Your task to perform on an android device: Clear all items from cart on amazon. Add usb-a to usb-b to the cart on amazon Image 0: 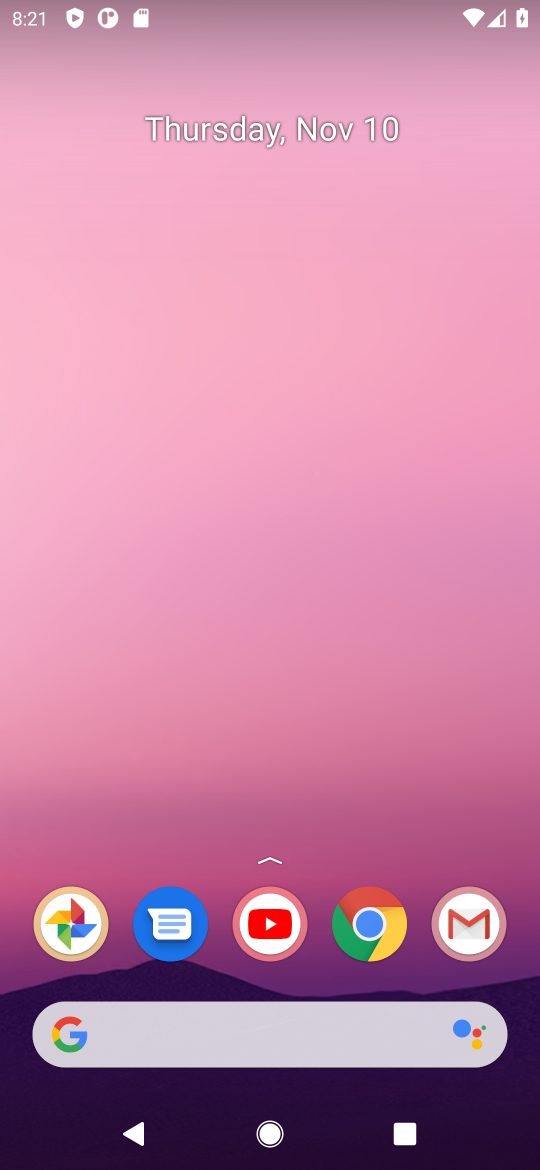
Step 0: click (380, 926)
Your task to perform on an android device: Clear all items from cart on amazon. Add usb-a to usb-b to the cart on amazon Image 1: 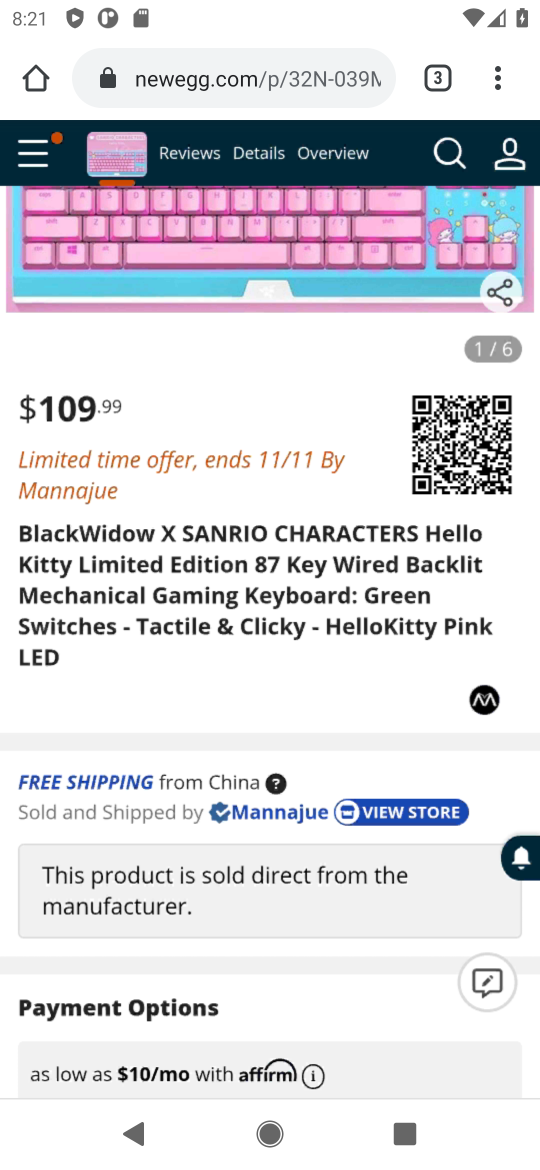
Step 1: click (222, 84)
Your task to perform on an android device: Clear all items from cart on amazon. Add usb-a to usb-b to the cart on amazon Image 2: 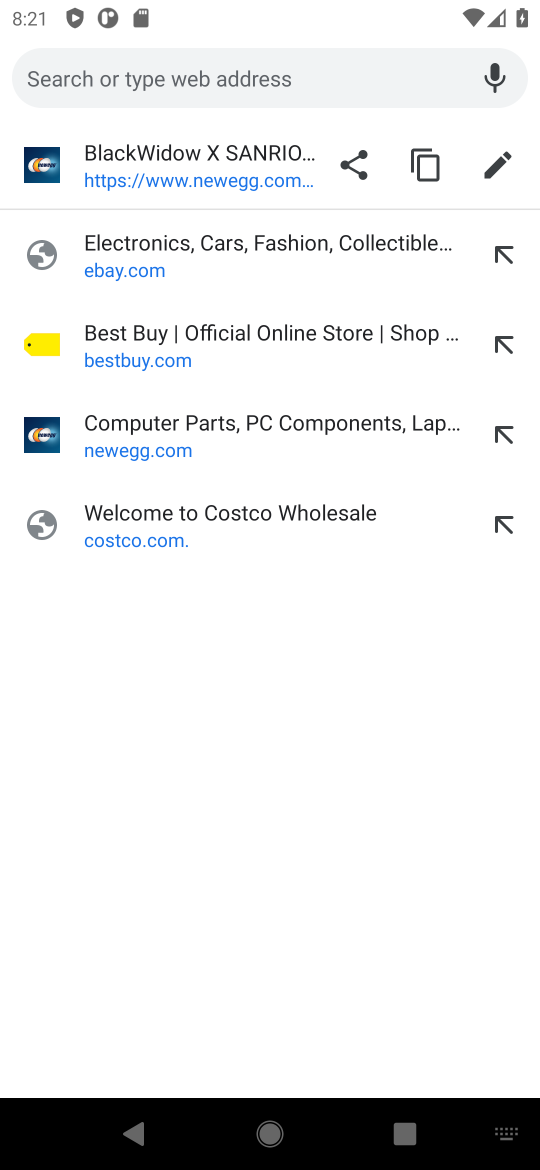
Step 2: type "amazon.com"
Your task to perform on an android device: Clear all items from cart on amazon. Add usb-a to usb-b to the cart on amazon Image 3: 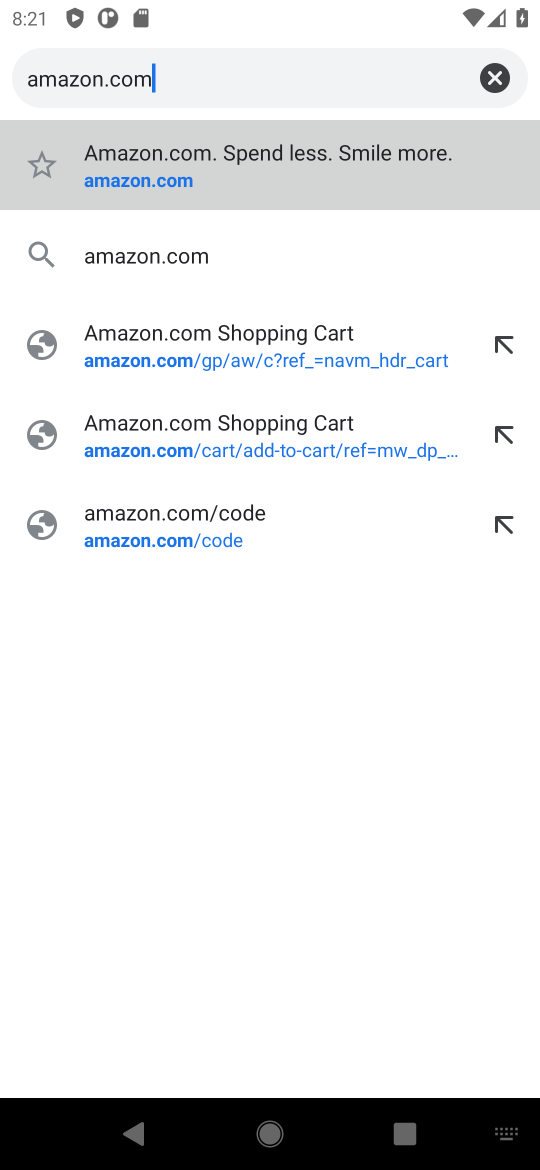
Step 3: click (185, 362)
Your task to perform on an android device: Clear all items from cart on amazon. Add usb-a to usb-b to the cart on amazon Image 4: 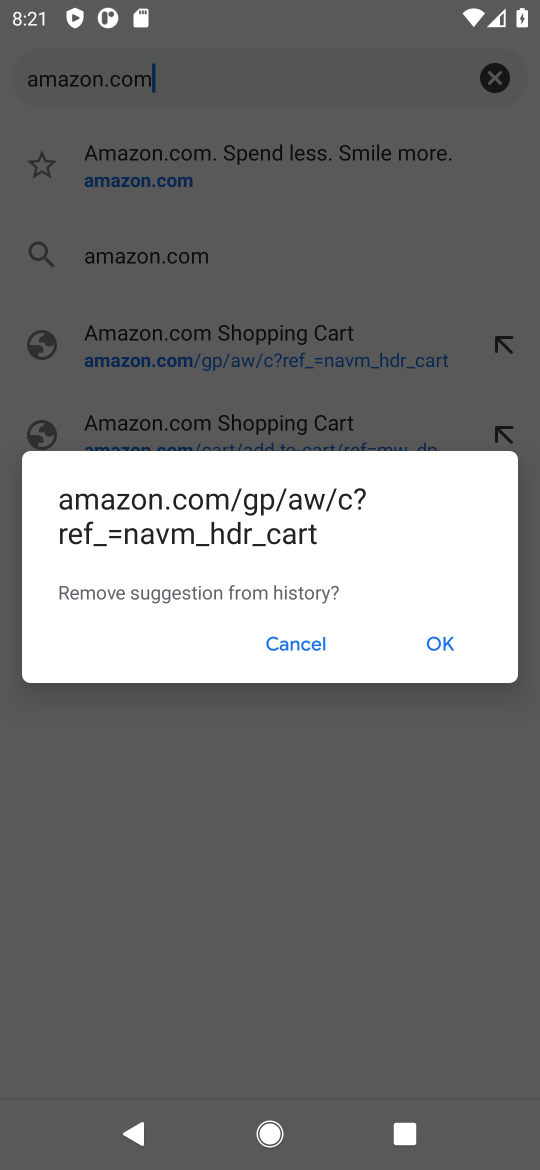
Step 4: click (185, 362)
Your task to perform on an android device: Clear all items from cart on amazon. Add usb-a to usb-b to the cart on amazon Image 5: 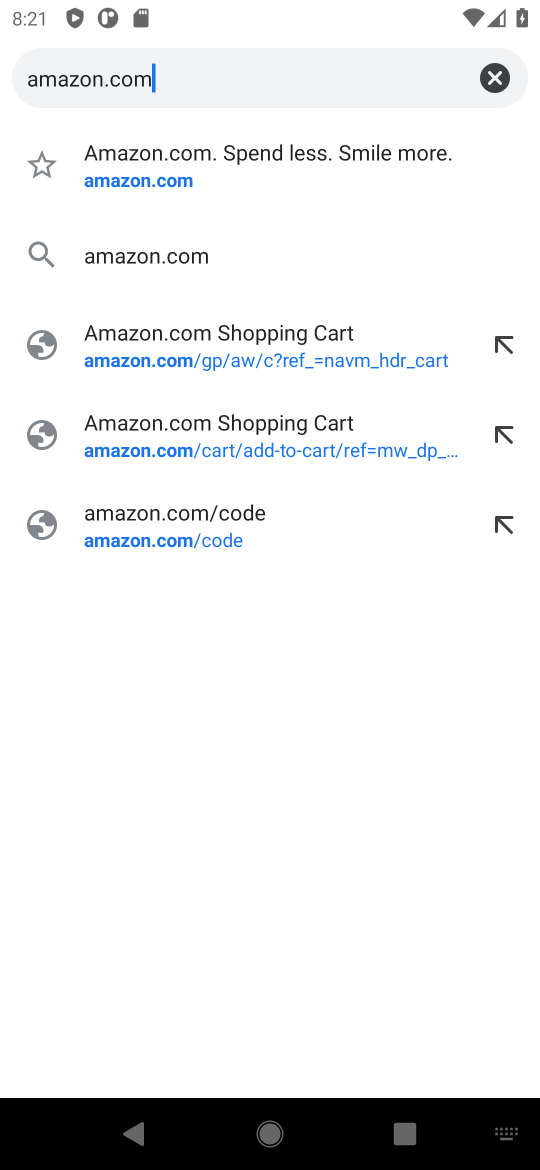
Step 5: click (183, 362)
Your task to perform on an android device: Clear all items from cart on amazon. Add usb-a to usb-b to the cart on amazon Image 6: 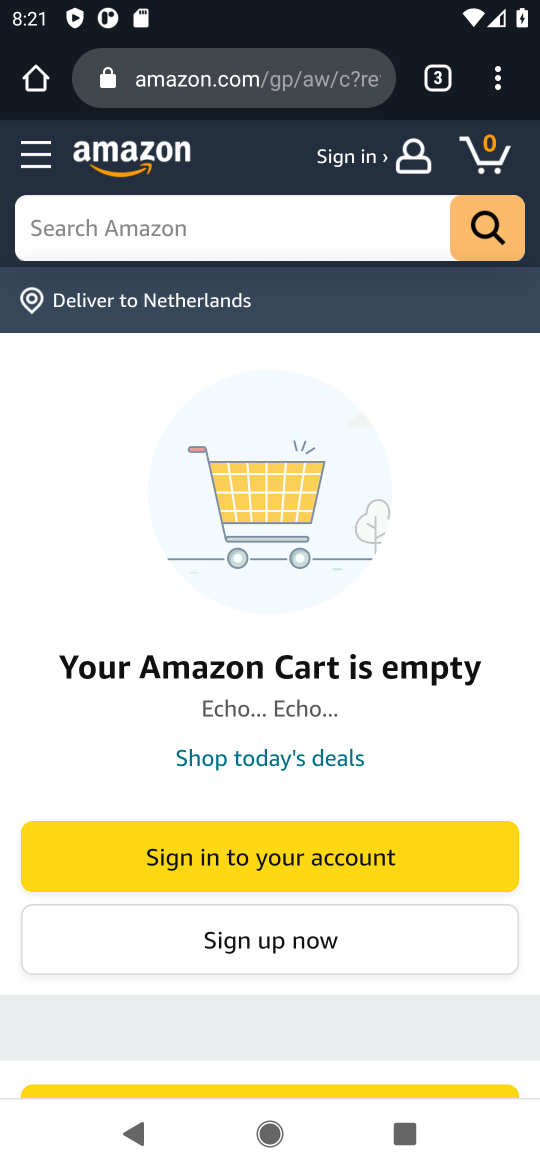
Step 6: drag from (301, 752) to (309, 595)
Your task to perform on an android device: Clear all items from cart on amazon. Add usb-a to usb-b to the cart on amazon Image 7: 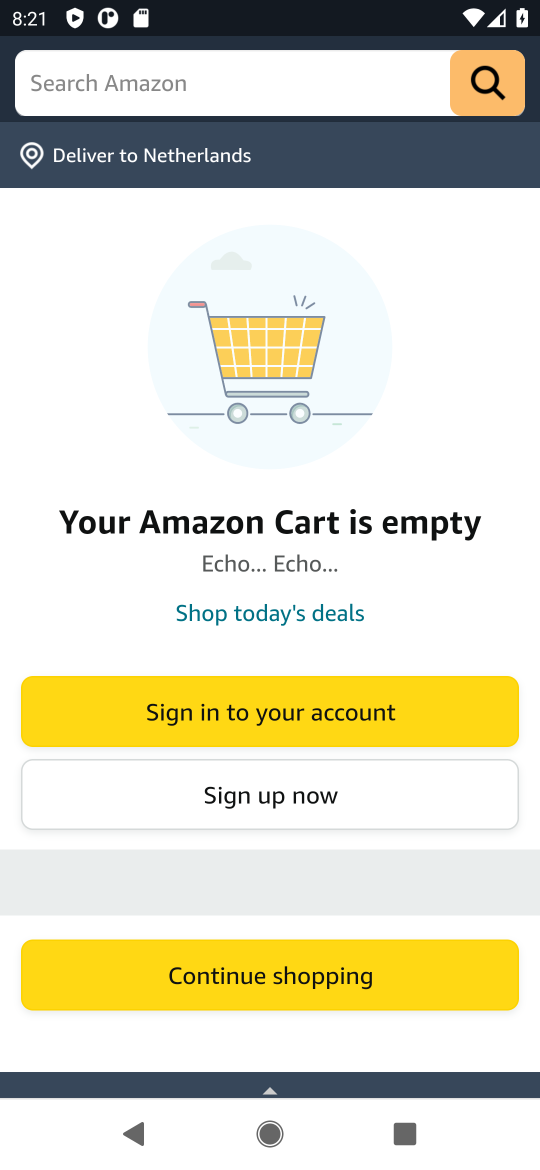
Step 7: click (204, 77)
Your task to perform on an android device: Clear all items from cart on amazon. Add usb-a to usb-b to the cart on amazon Image 8: 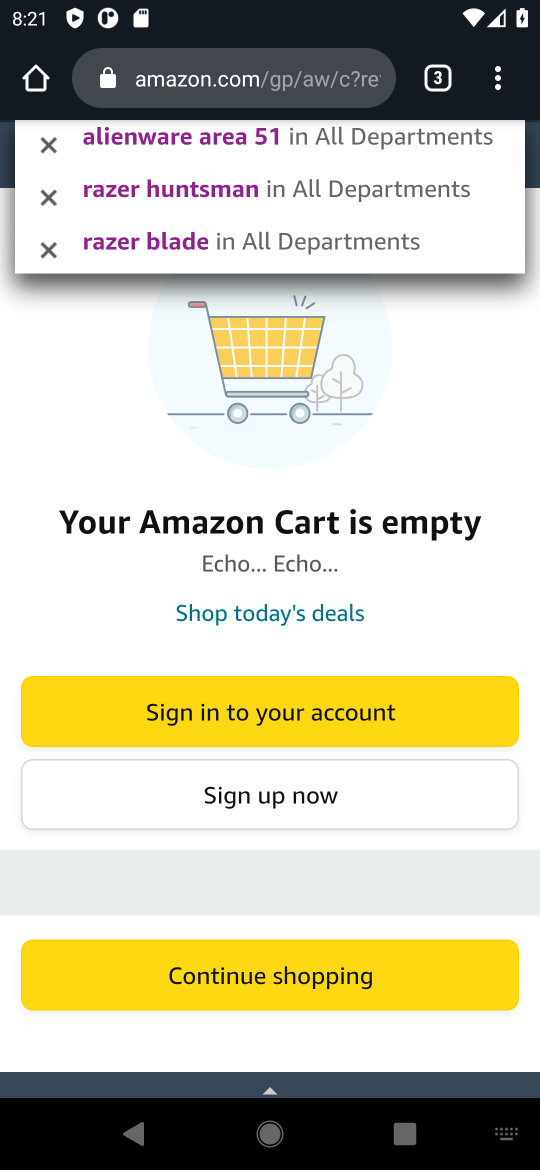
Step 8: type "usb-a to usb-b"
Your task to perform on an android device: Clear all items from cart on amazon. Add usb-a to usb-b to the cart on amazon Image 9: 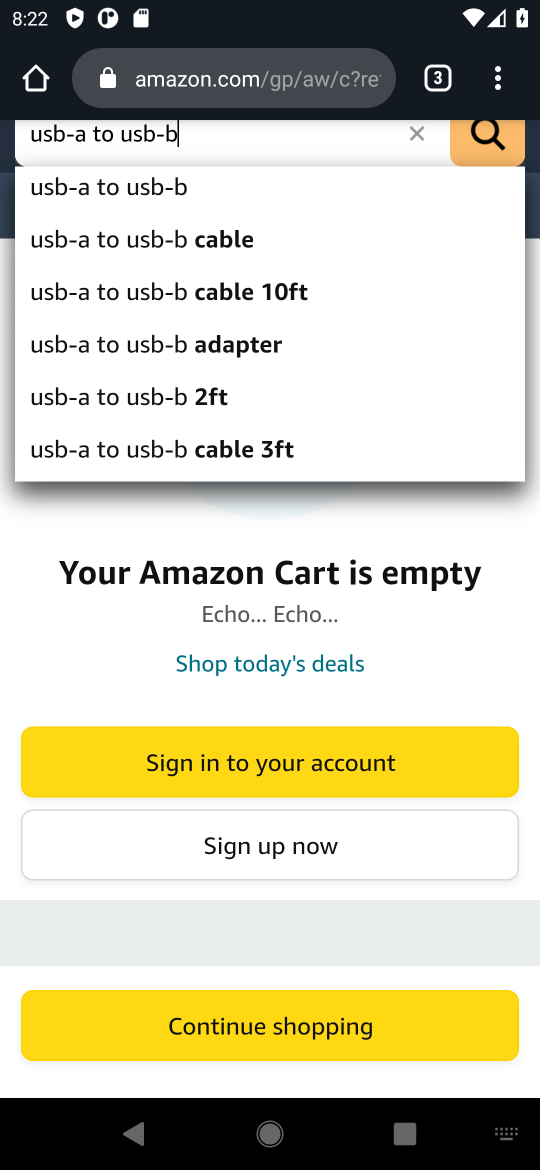
Step 9: click (147, 191)
Your task to perform on an android device: Clear all items from cart on amazon. Add usb-a to usb-b to the cart on amazon Image 10: 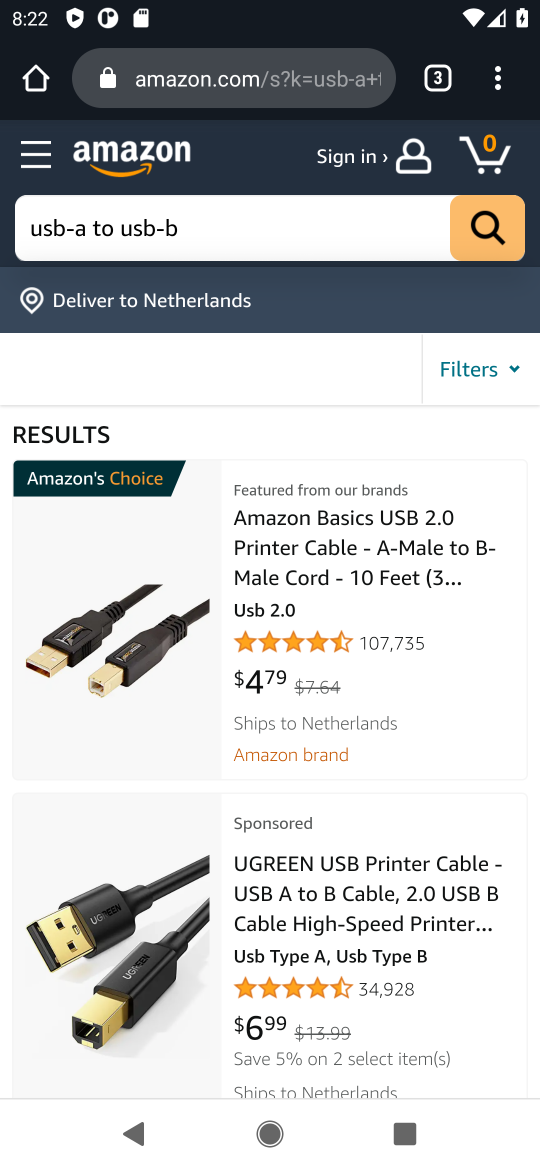
Step 10: click (25, 972)
Your task to perform on an android device: Clear all items from cart on amazon. Add usb-a to usb-b to the cart on amazon Image 11: 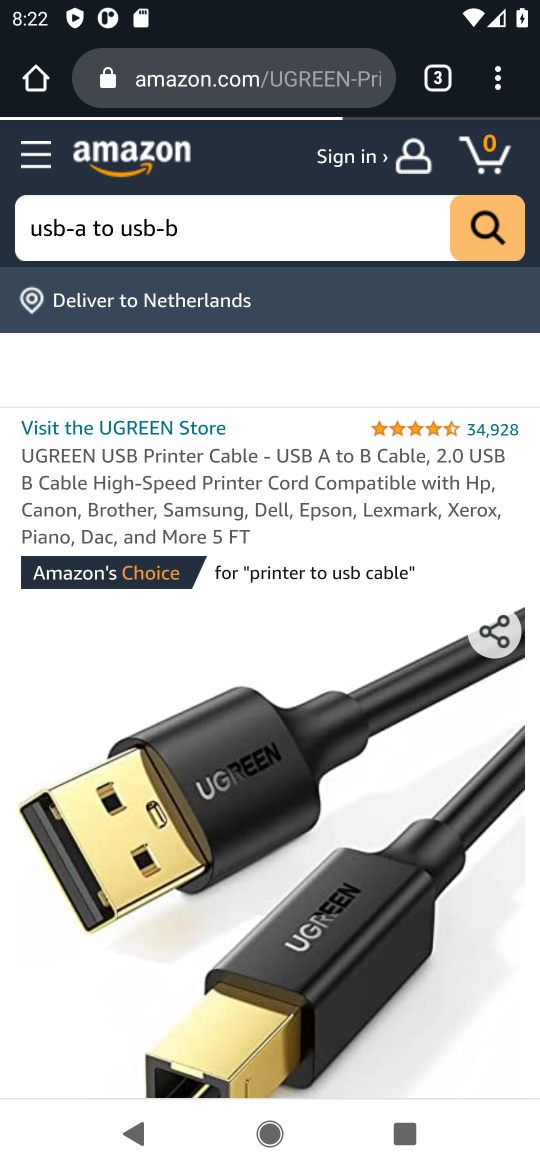
Step 11: drag from (302, 866) to (306, 303)
Your task to perform on an android device: Clear all items from cart on amazon. Add usb-a to usb-b to the cart on amazon Image 12: 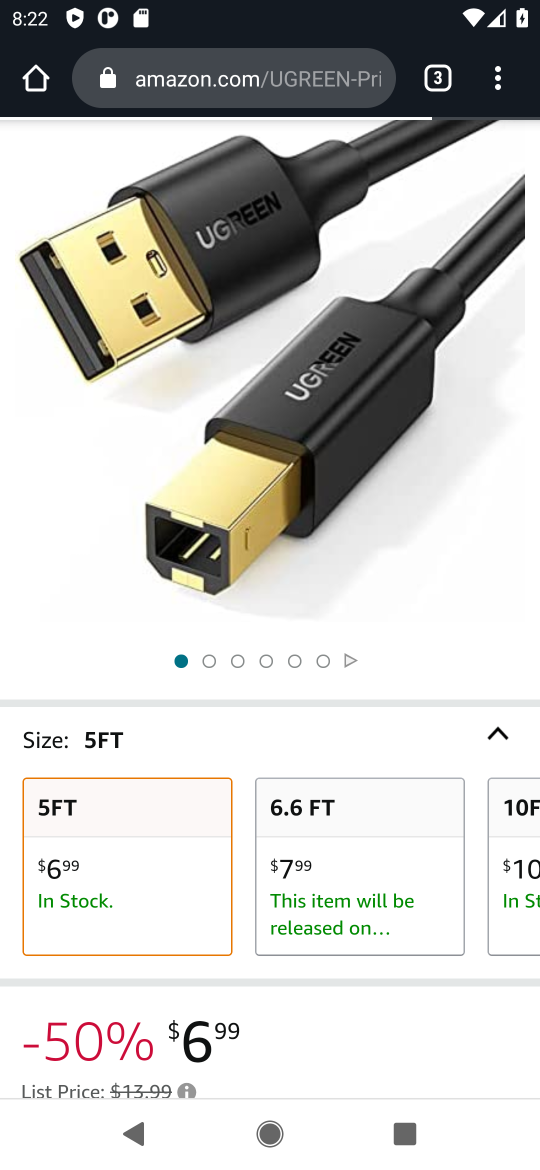
Step 12: drag from (319, 878) to (319, 295)
Your task to perform on an android device: Clear all items from cart on amazon. Add usb-a to usb-b to the cart on amazon Image 13: 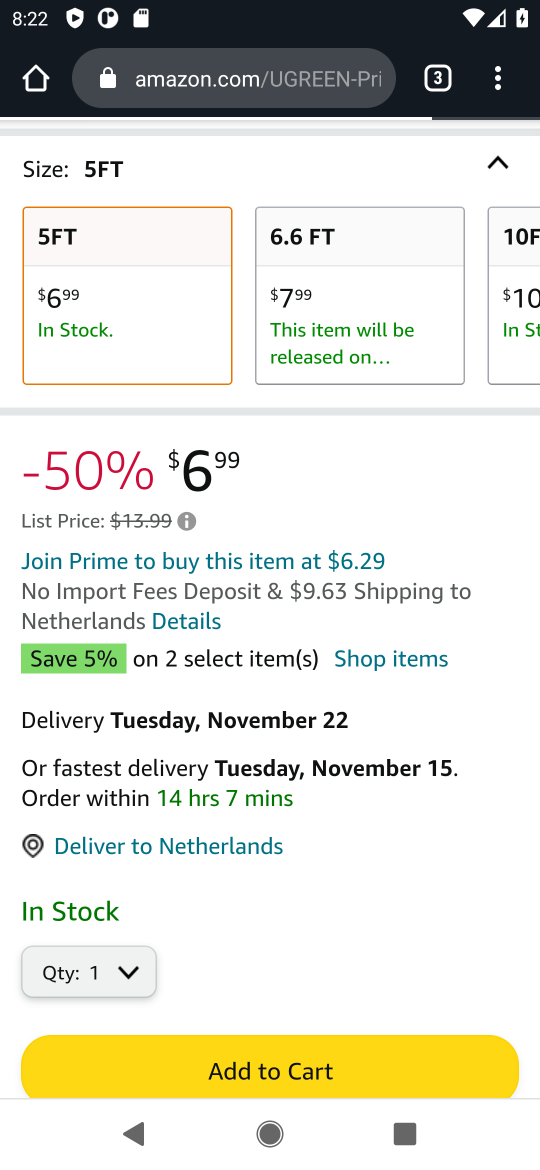
Step 13: click (226, 1067)
Your task to perform on an android device: Clear all items from cart on amazon. Add usb-a to usb-b to the cart on amazon Image 14: 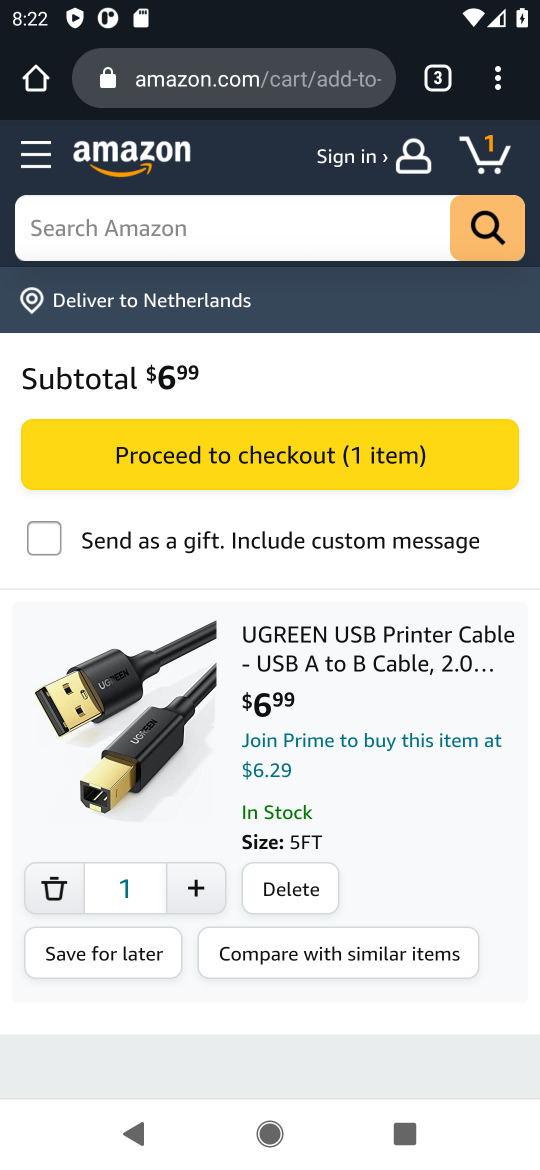
Step 14: task complete